Your task to perform on an android device: Open calendar and show me the third week of next month Image 0: 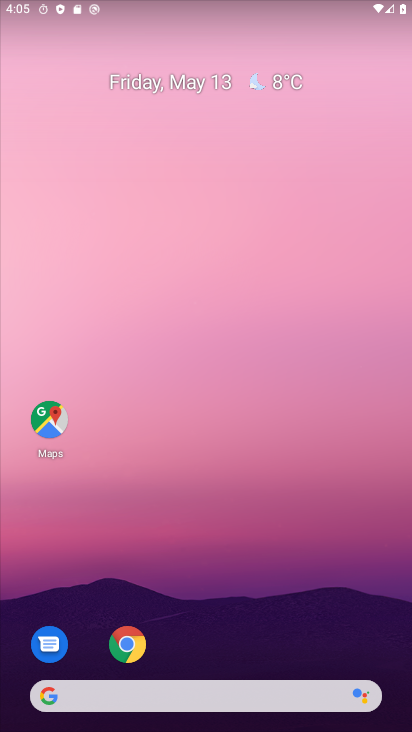
Step 0: drag from (227, 652) to (300, 145)
Your task to perform on an android device: Open calendar and show me the third week of next month Image 1: 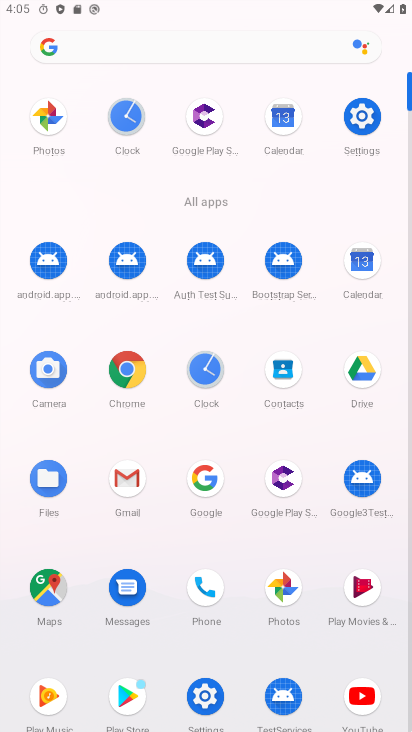
Step 1: click (367, 267)
Your task to perform on an android device: Open calendar and show me the third week of next month Image 2: 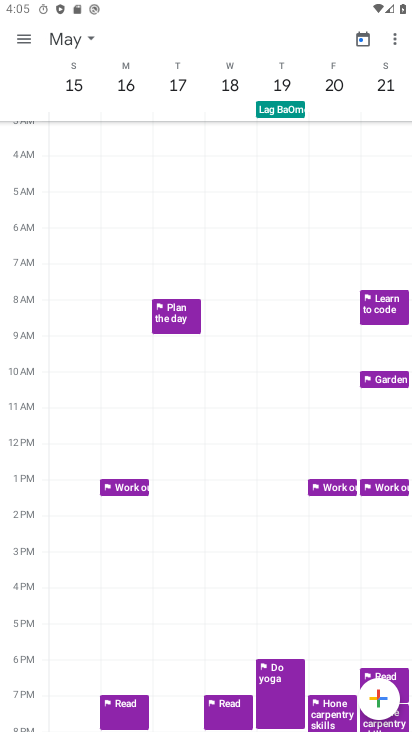
Step 2: click (27, 44)
Your task to perform on an android device: Open calendar and show me the third week of next month Image 3: 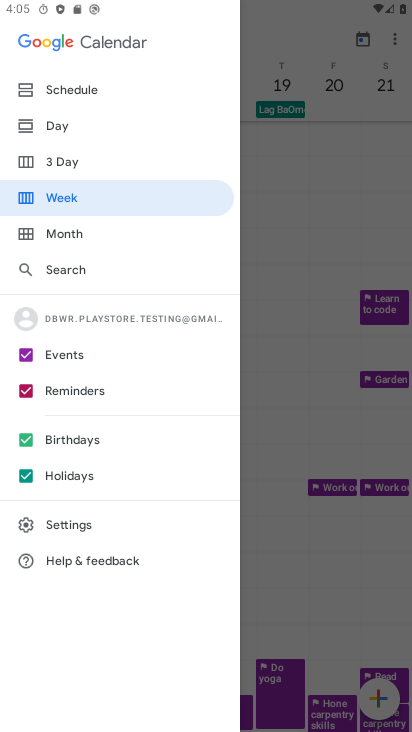
Step 3: click (151, 232)
Your task to perform on an android device: Open calendar and show me the third week of next month Image 4: 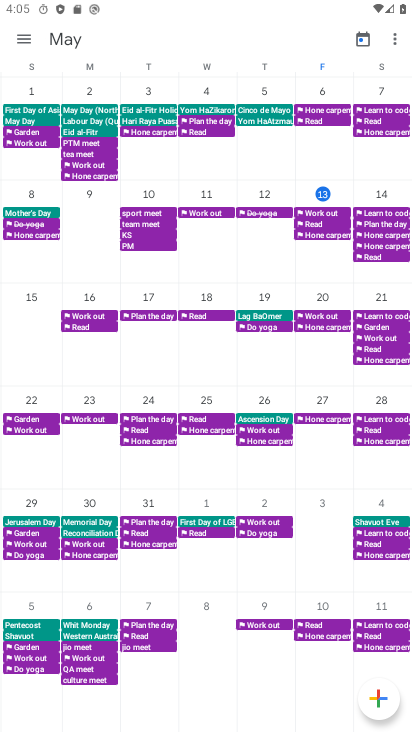
Step 4: drag from (390, 226) to (32, 279)
Your task to perform on an android device: Open calendar and show me the third week of next month Image 5: 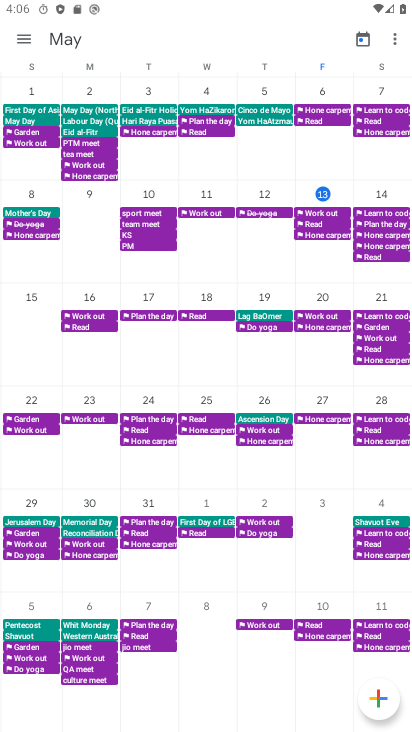
Step 5: drag from (377, 244) to (1, 100)
Your task to perform on an android device: Open calendar and show me the third week of next month Image 6: 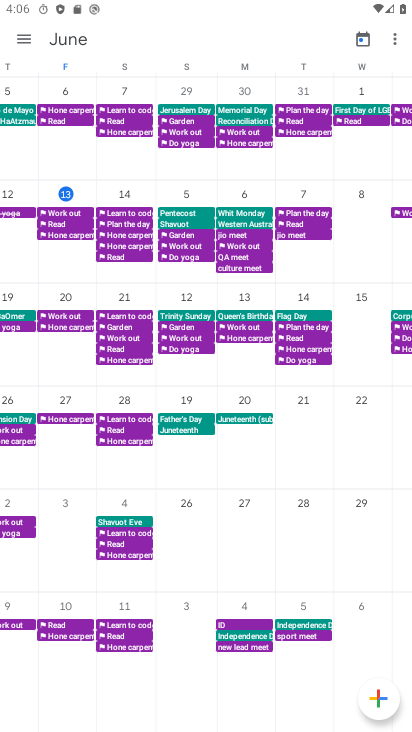
Step 6: click (25, 47)
Your task to perform on an android device: Open calendar and show me the third week of next month Image 7: 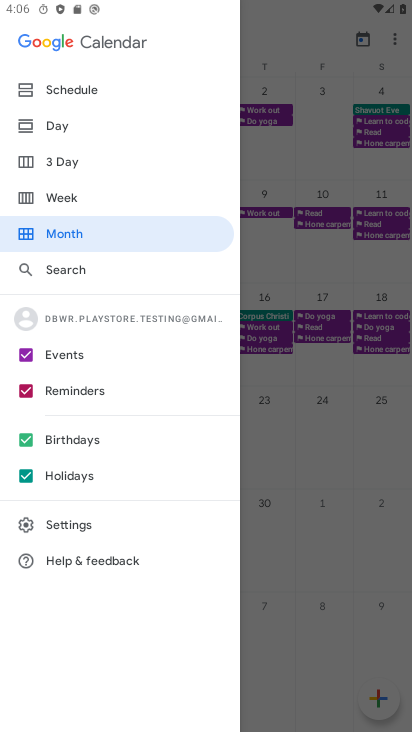
Step 7: click (70, 194)
Your task to perform on an android device: Open calendar and show me the third week of next month Image 8: 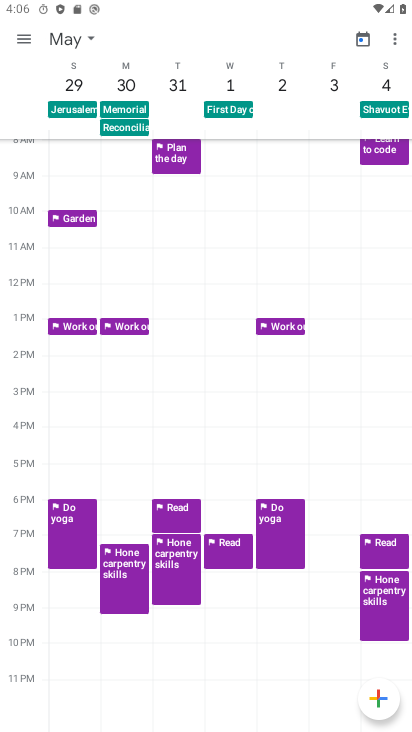
Step 8: task complete